Your task to perform on an android device: allow notifications from all sites in the chrome app Image 0: 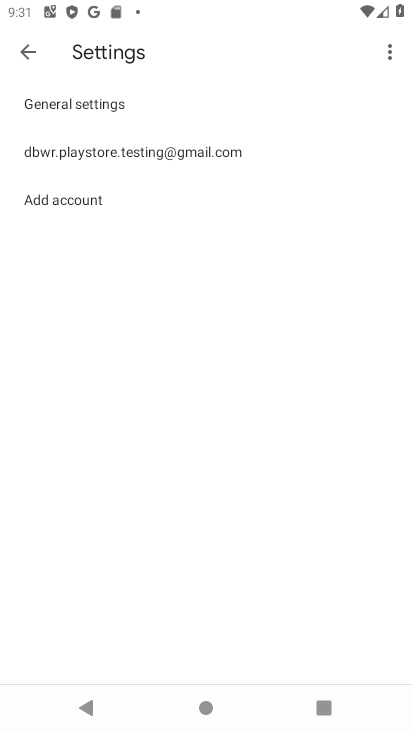
Step 0: press home button
Your task to perform on an android device: allow notifications from all sites in the chrome app Image 1: 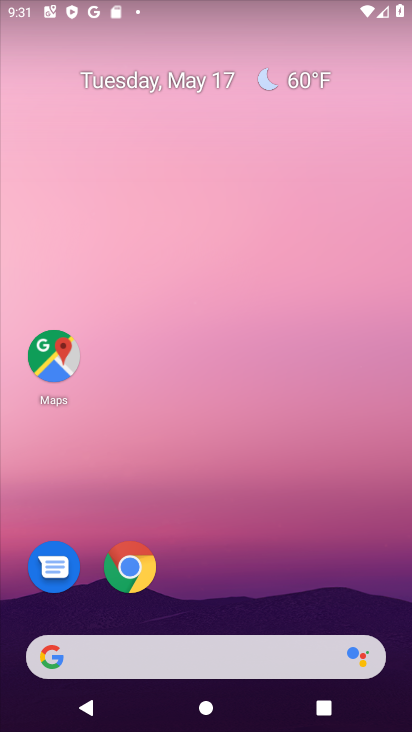
Step 1: drag from (380, 630) to (273, 62)
Your task to perform on an android device: allow notifications from all sites in the chrome app Image 2: 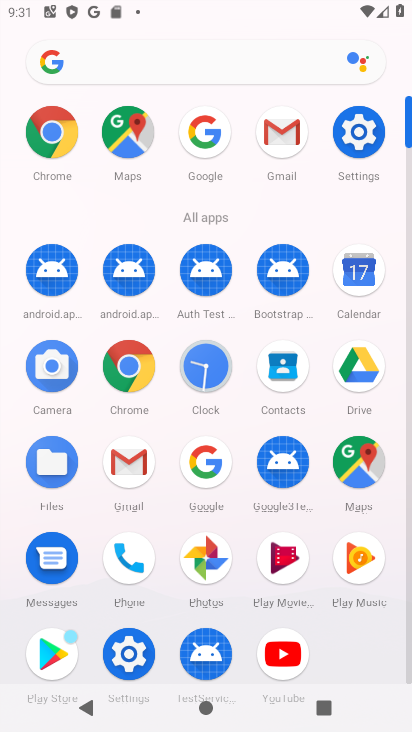
Step 2: click (105, 356)
Your task to perform on an android device: allow notifications from all sites in the chrome app Image 3: 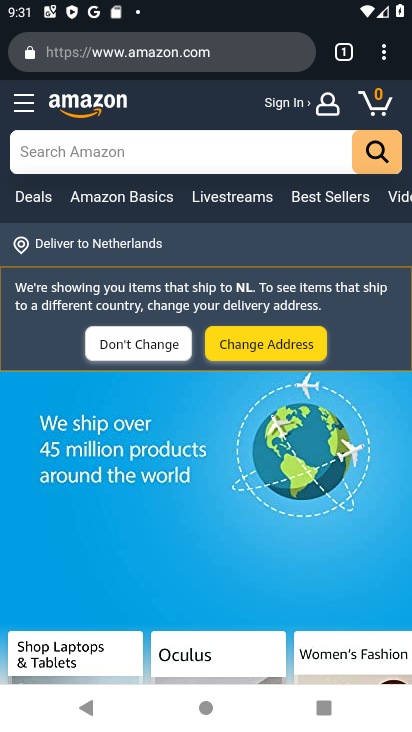
Step 3: press back button
Your task to perform on an android device: allow notifications from all sites in the chrome app Image 4: 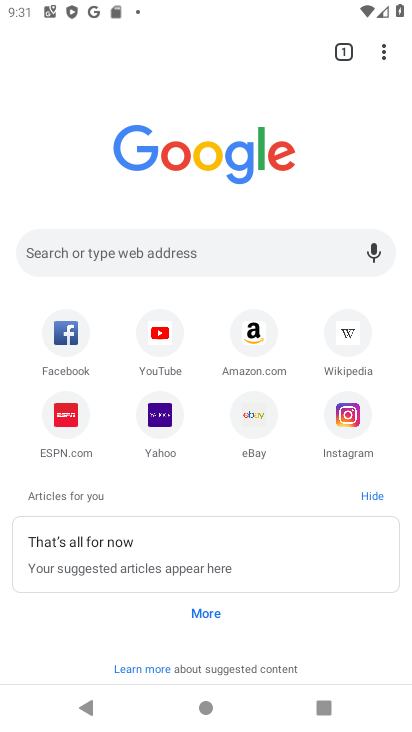
Step 4: click (390, 53)
Your task to perform on an android device: allow notifications from all sites in the chrome app Image 5: 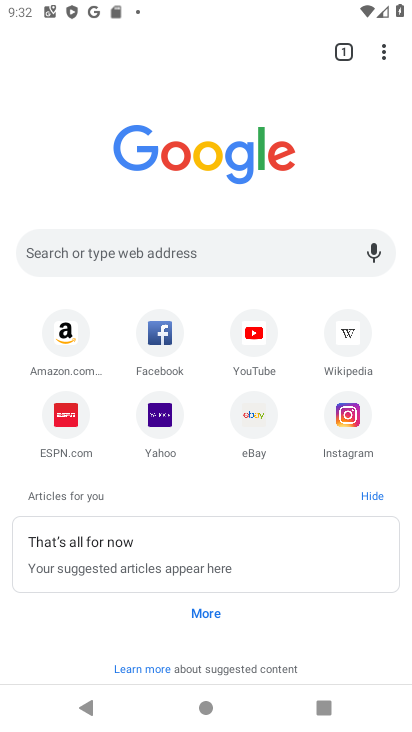
Step 5: click (388, 48)
Your task to perform on an android device: allow notifications from all sites in the chrome app Image 6: 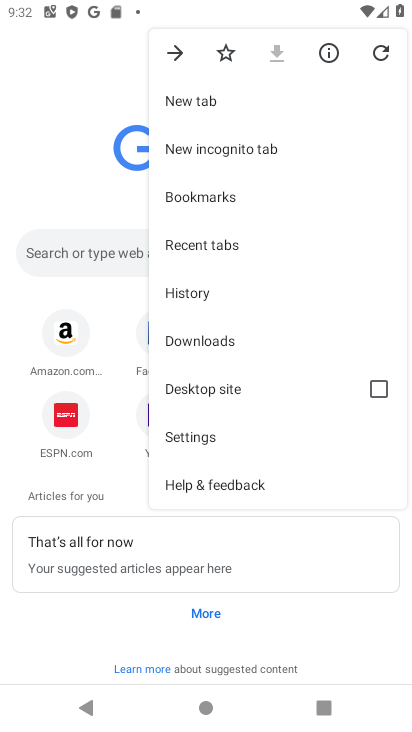
Step 6: click (215, 441)
Your task to perform on an android device: allow notifications from all sites in the chrome app Image 7: 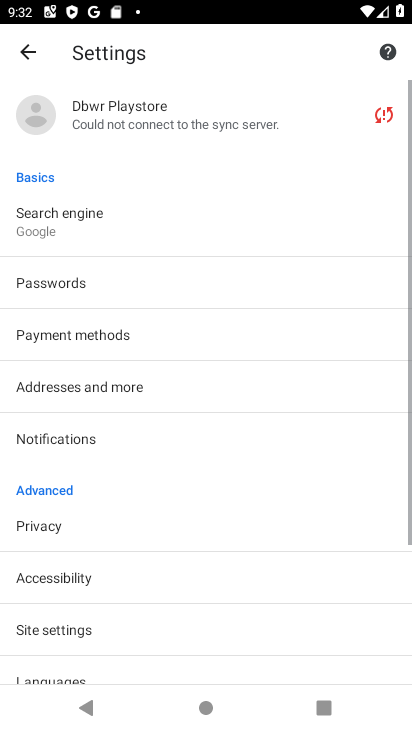
Step 7: click (74, 432)
Your task to perform on an android device: allow notifications from all sites in the chrome app Image 8: 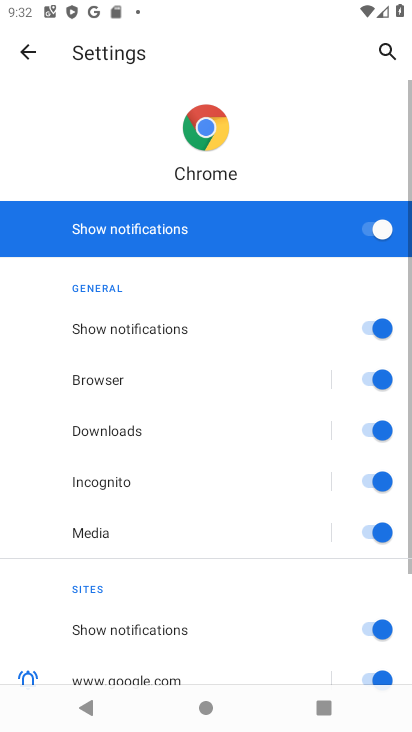
Step 8: task complete